Your task to perform on an android device: Search for pizza restaurants on Maps Image 0: 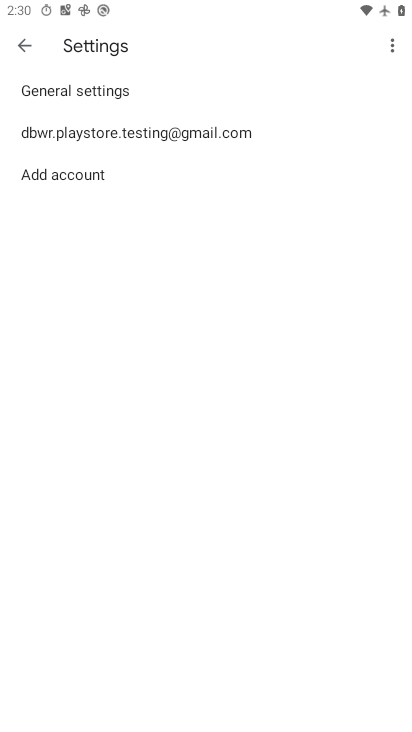
Step 0: press home button
Your task to perform on an android device: Search for pizza restaurants on Maps Image 1: 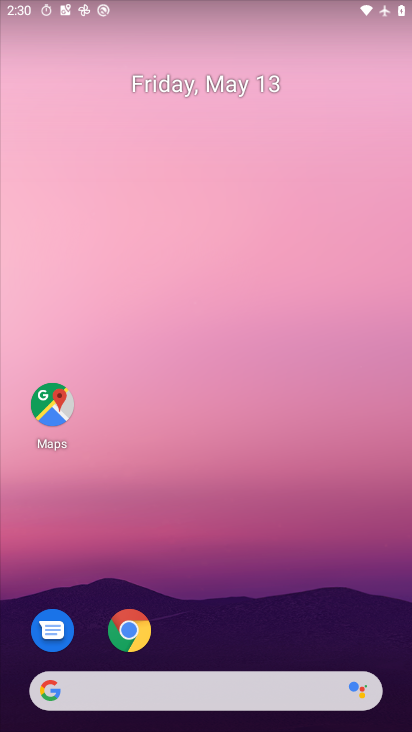
Step 1: drag from (247, 639) to (223, 207)
Your task to perform on an android device: Search for pizza restaurants on Maps Image 2: 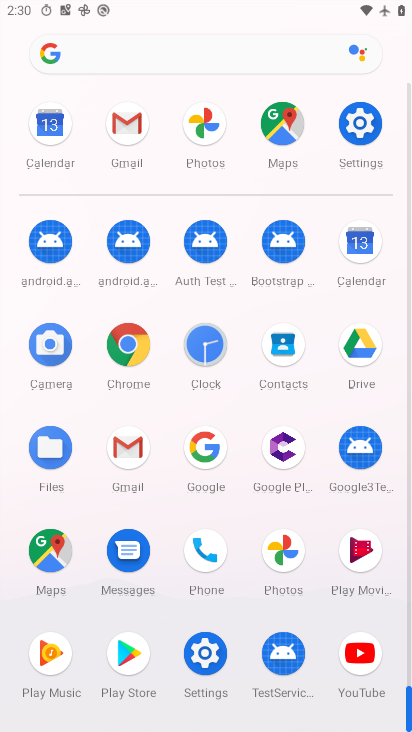
Step 2: click (63, 565)
Your task to perform on an android device: Search for pizza restaurants on Maps Image 3: 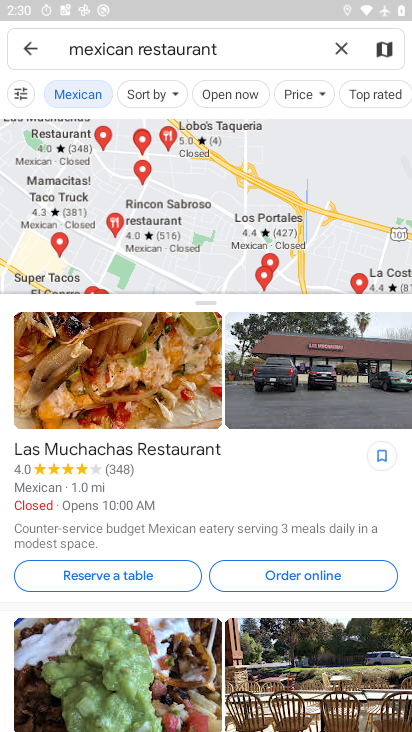
Step 3: click (345, 51)
Your task to perform on an android device: Search for pizza restaurants on Maps Image 4: 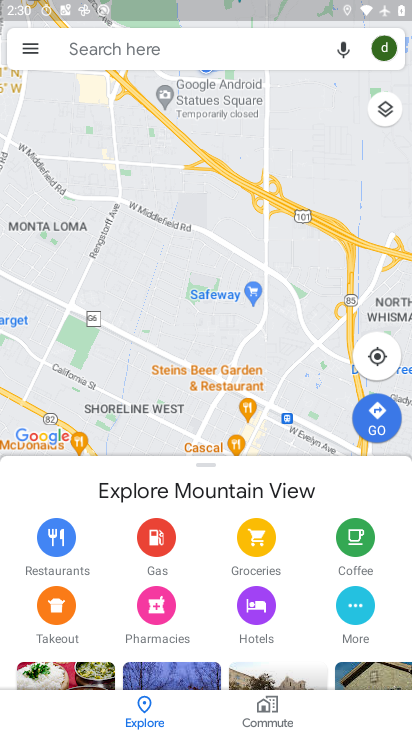
Step 4: click (232, 51)
Your task to perform on an android device: Search for pizza restaurants on Maps Image 5: 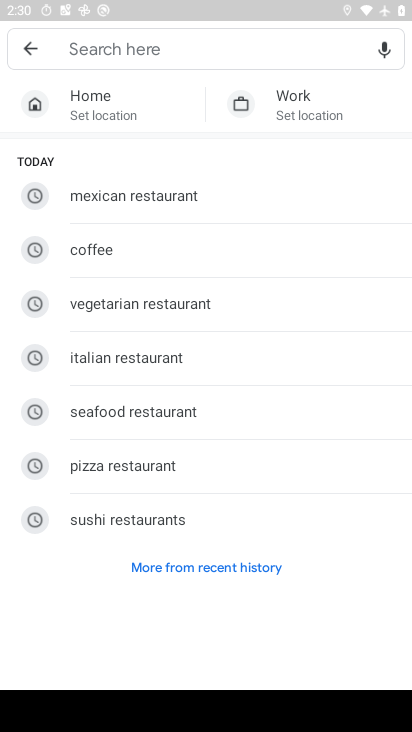
Step 5: click (174, 461)
Your task to perform on an android device: Search for pizza restaurants on Maps Image 6: 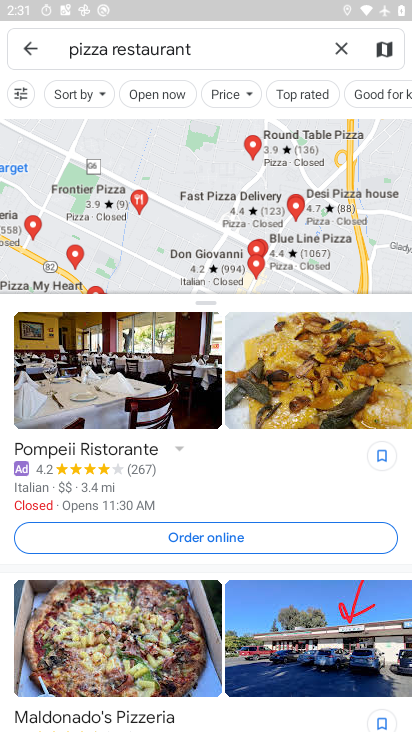
Step 6: task complete